Your task to perform on an android device: uninstall "Gboard" Image 0: 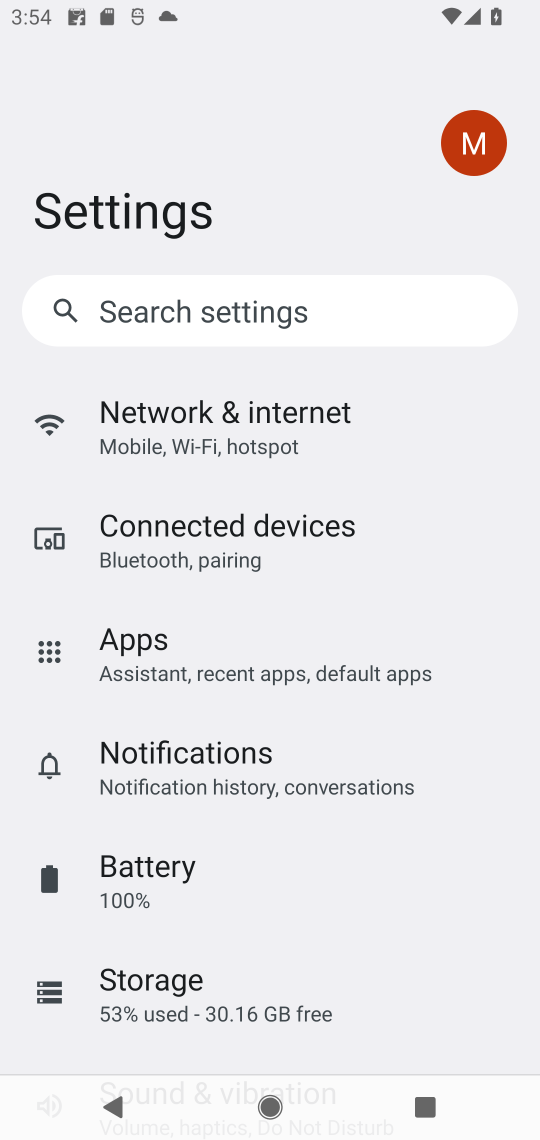
Step 0: press home button
Your task to perform on an android device: uninstall "Gboard" Image 1: 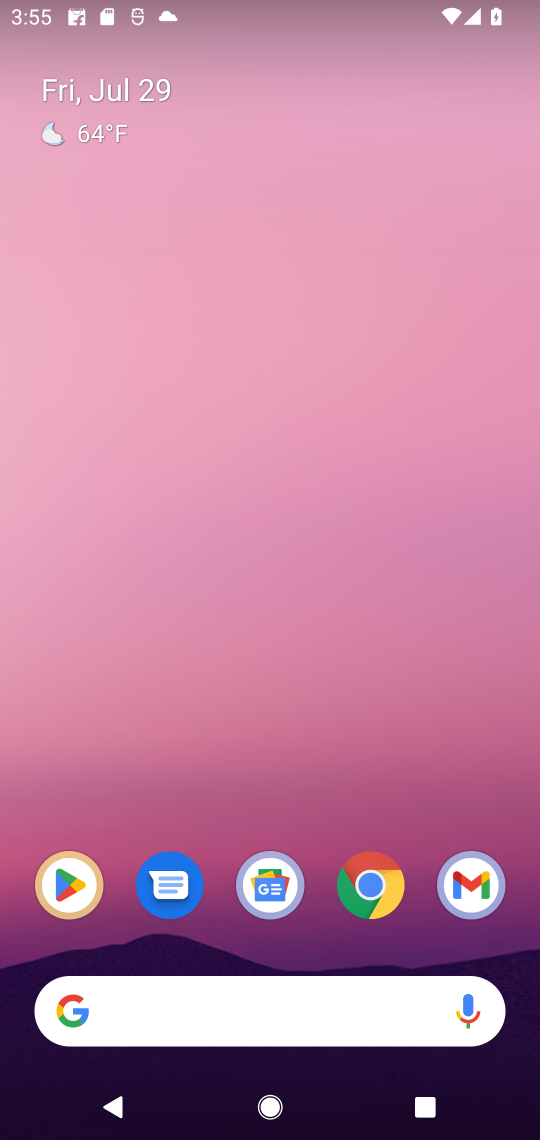
Step 1: click (77, 868)
Your task to perform on an android device: uninstall "Gboard" Image 2: 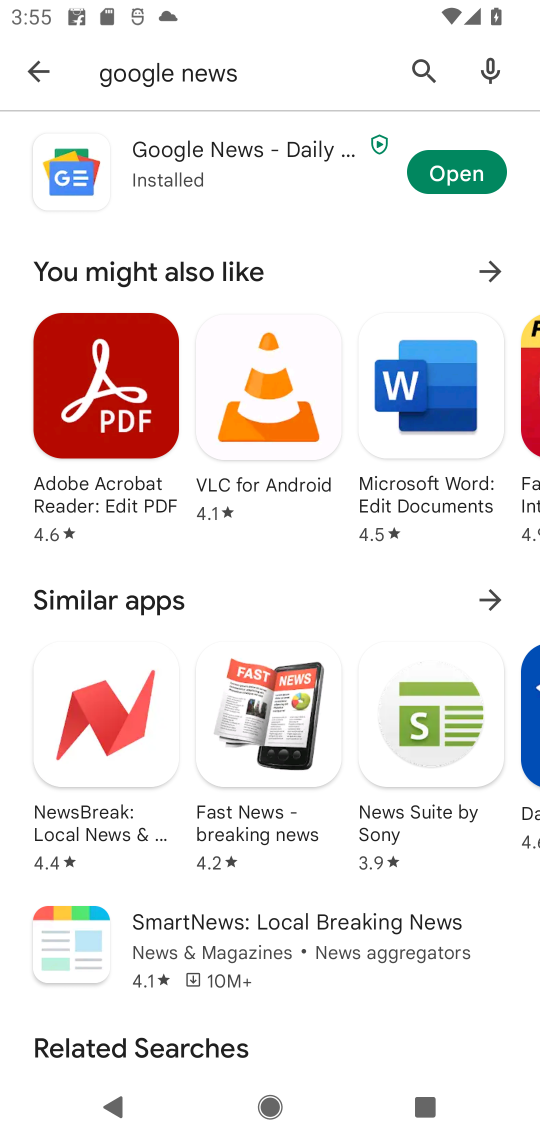
Step 2: click (417, 80)
Your task to perform on an android device: uninstall "Gboard" Image 3: 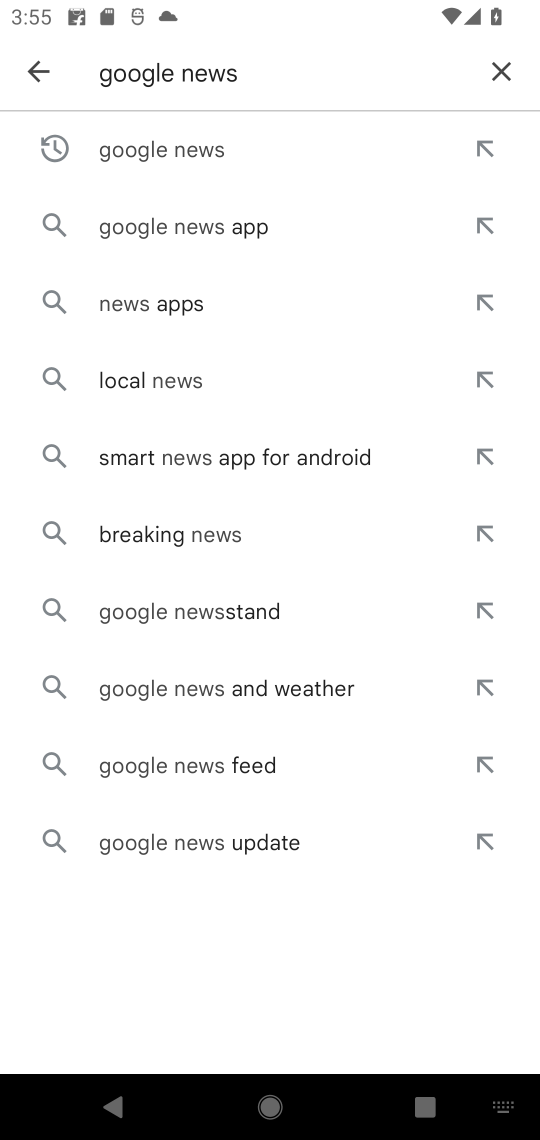
Step 3: click (506, 71)
Your task to perform on an android device: uninstall "Gboard" Image 4: 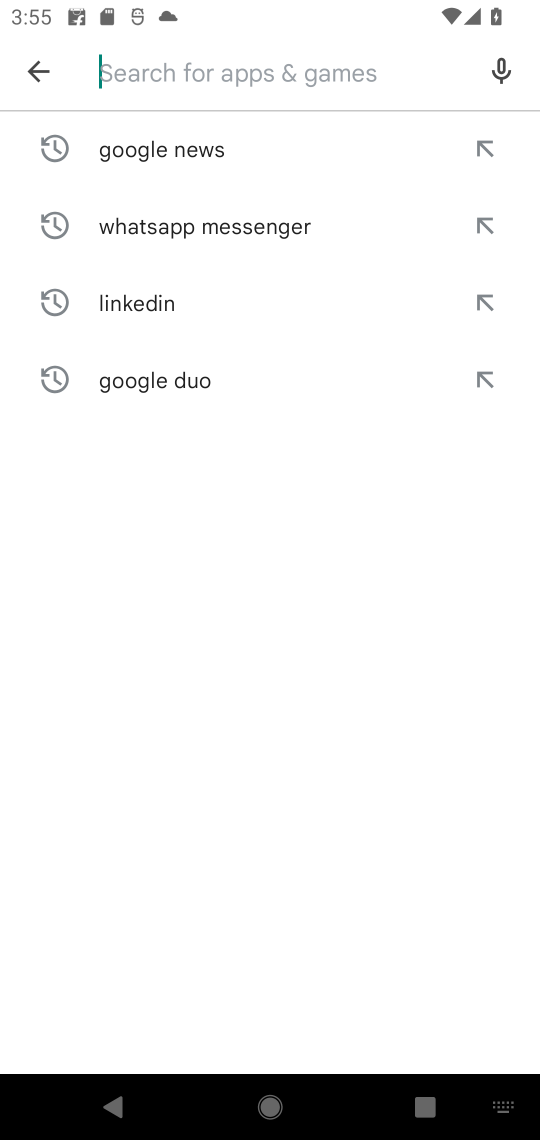
Step 4: type "Gboard"
Your task to perform on an android device: uninstall "Gboard" Image 5: 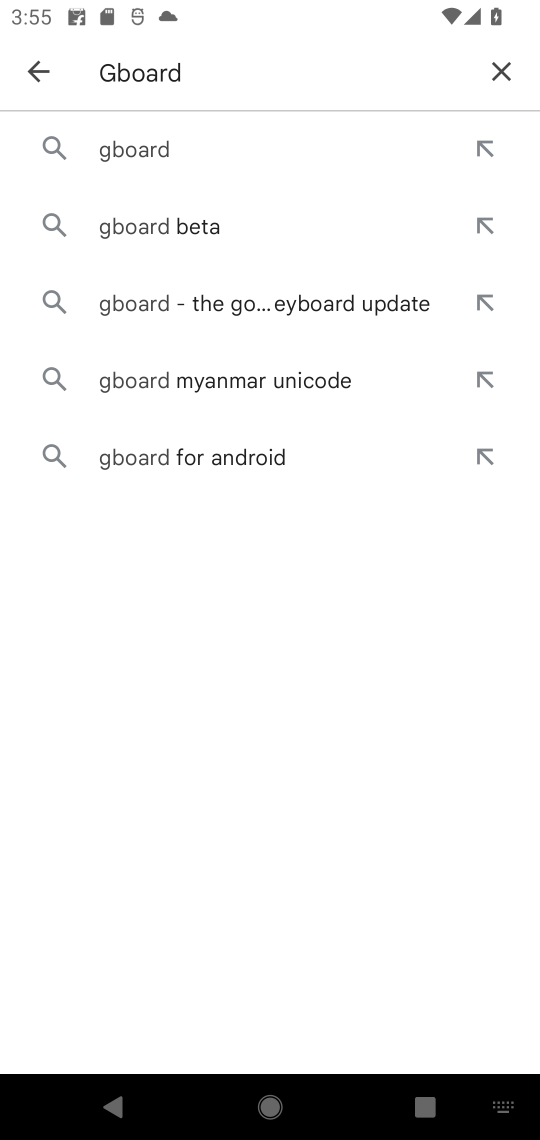
Step 5: click (170, 146)
Your task to perform on an android device: uninstall "Gboard" Image 6: 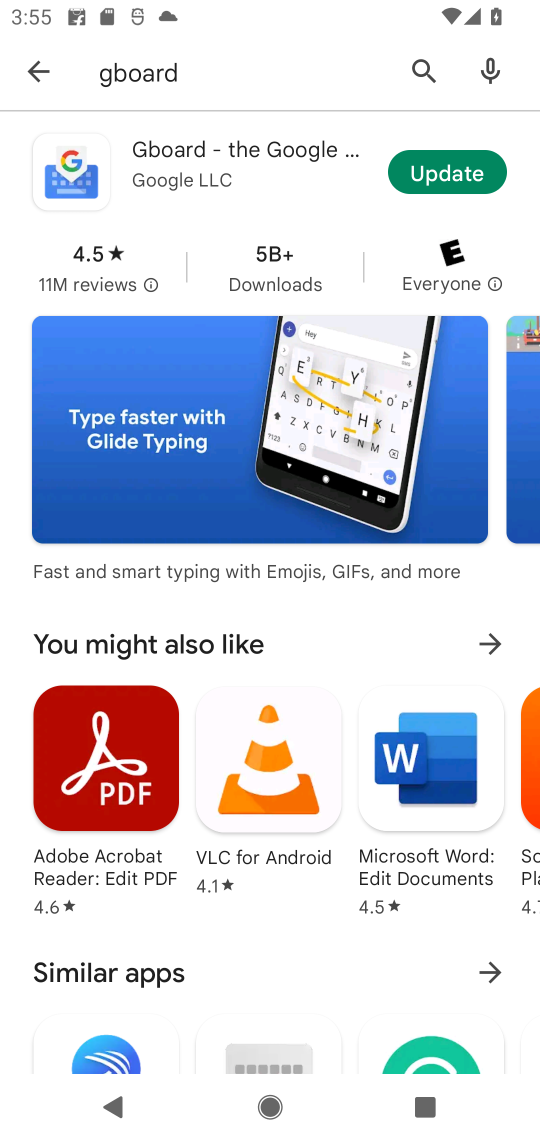
Step 6: click (170, 146)
Your task to perform on an android device: uninstall "Gboard" Image 7: 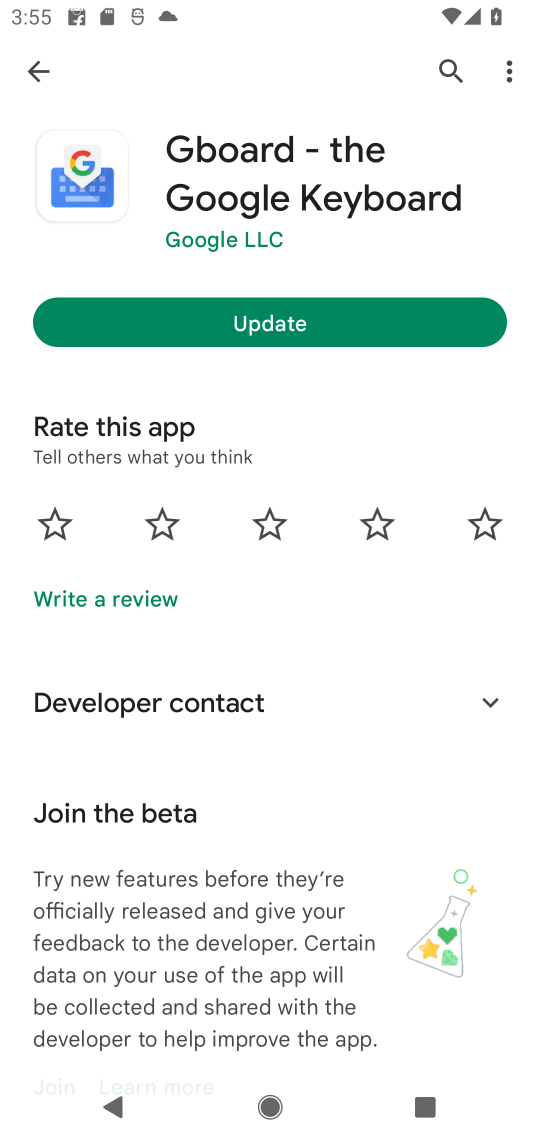
Step 7: task complete